Your task to perform on an android device: empty trash in the gmail app Image 0: 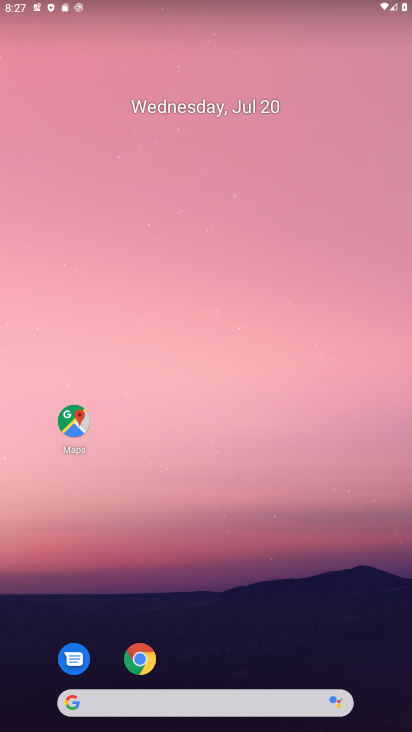
Step 0: drag from (268, 586) to (279, 79)
Your task to perform on an android device: empty trash in the gmail app Image 1: 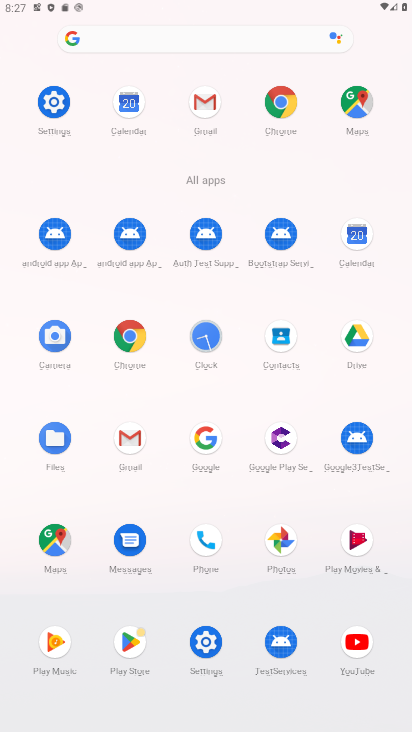
Step 1: click (42, 546)
Your task to perform on an android device: empty trash in the gmail app Image 2: 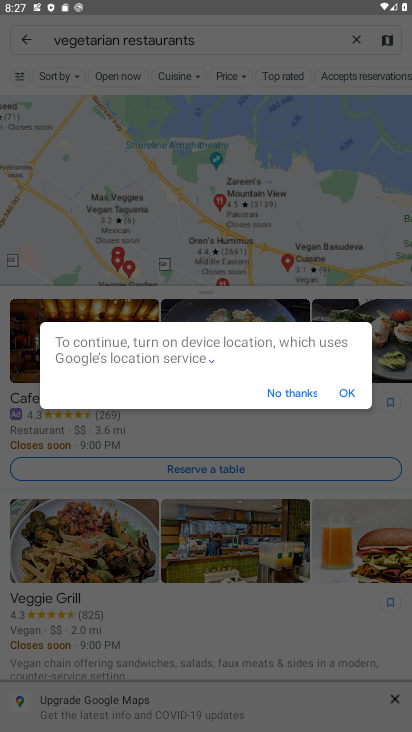
Step 2: press home button
Your task to perform on an android device: empty trash in the gmail app Image 3: 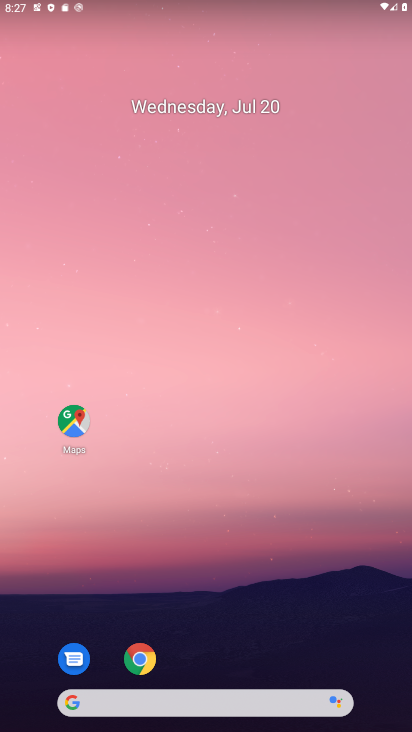
Step 3: drag from (253, 643) to (268, 116)
Your task to perform on an android device: empty trash in the gmail app Image 4: 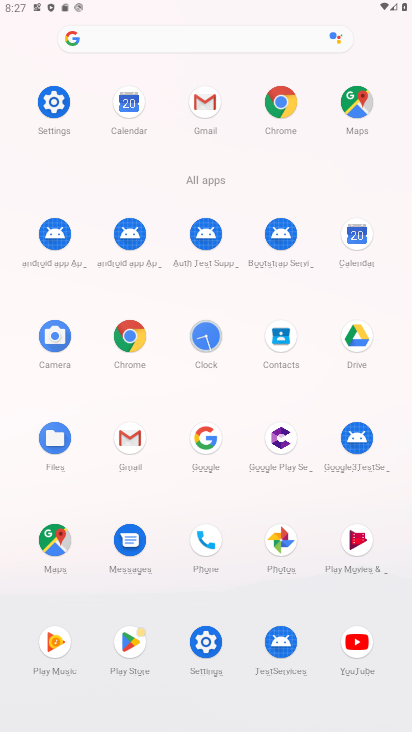
Step 4: click (131, 440)
Your task to perform on an android device: empty trash in the gmail app Image 5: 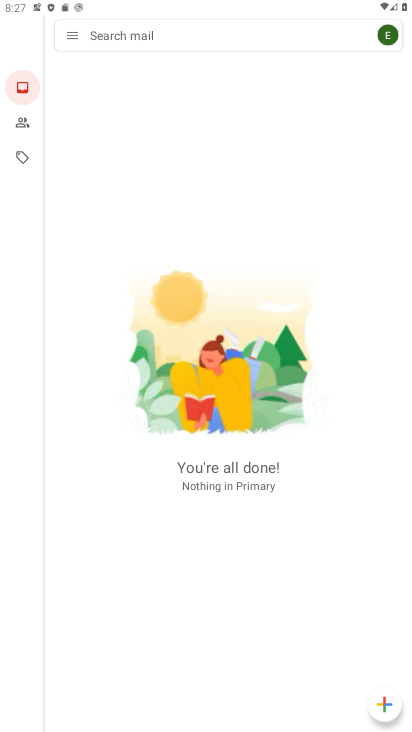
Step 5: click (71, 39)
Your task to perform on an android device: empty trash in the gmail app Image 6: 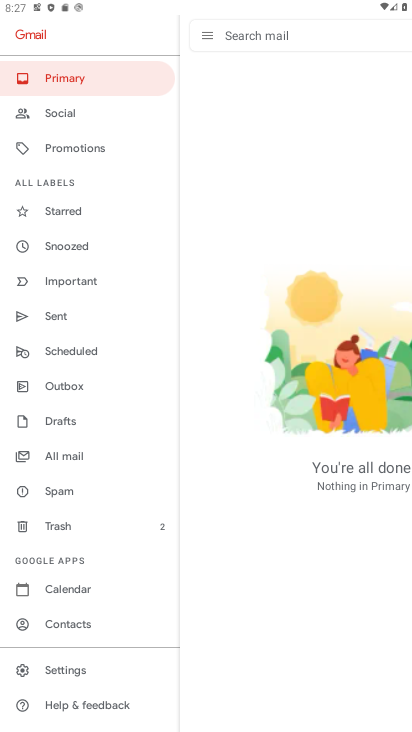
Step 6: click (49, 522)
Your task to perform on an android device: empty trash in the gmail app Image 7: 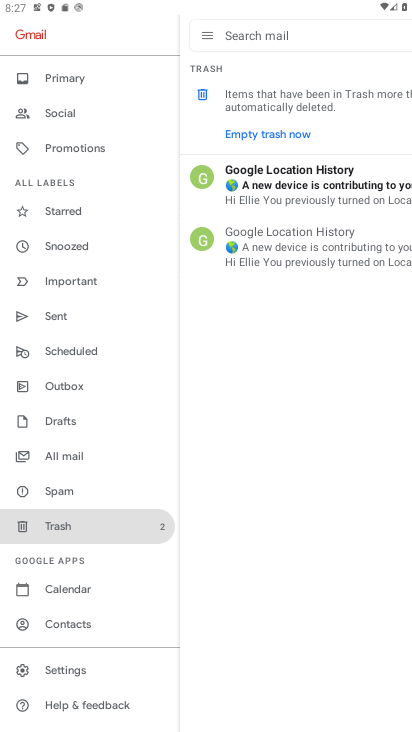
Step 7: click (202, 181)
Your task to perform on an android device: empty trash in the gmail app Image 8: 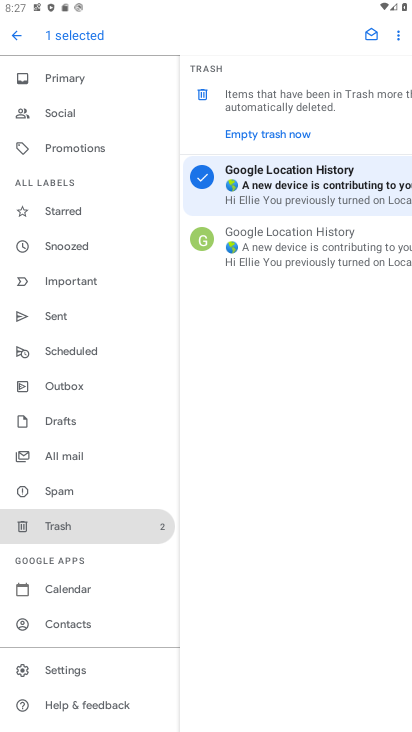
Step 8: click (200, 235)
Your task to perform on an android device: empty trash in the gmail app Image 9: 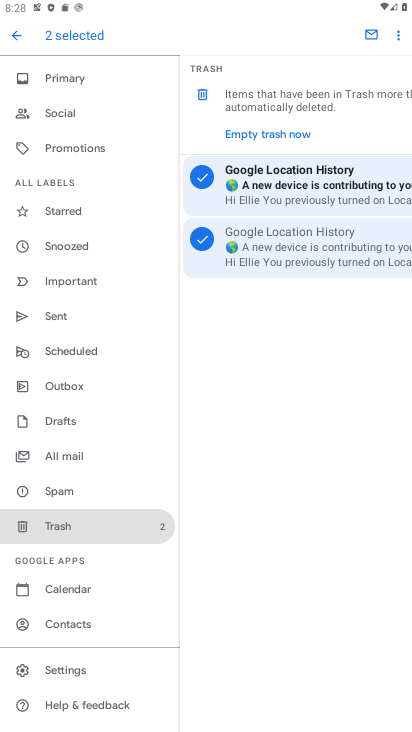
Step 9: click (401, 33)
Your task to perform on an android device: empty trash in the gmail app Image 10: 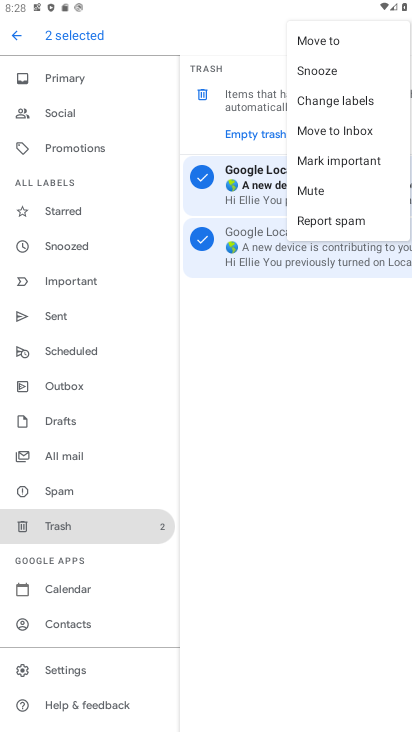
Step 10: click (323, 35)
Your task to perform on an android device: empty trash in the gmail app Image 11: 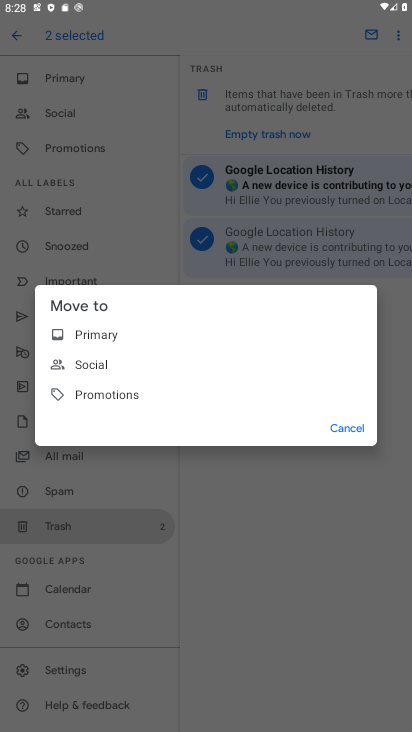
Step 11: click (340, 425)
Your task to perform on an android device: empty trash in the gmail app Image 12: 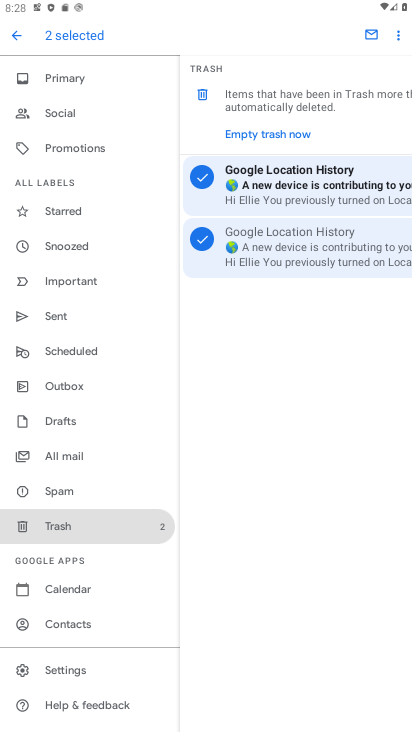
Step 12: click (201, 98)
Your task to perform on an android device: empty trash in the gmail app Image 13: 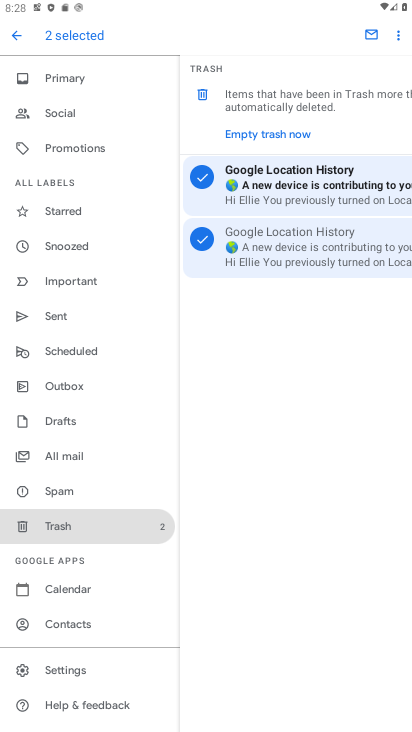
Step 13: click (201, 98)
Your task to perform on an android device: empty trash in the gmail app Image 14: 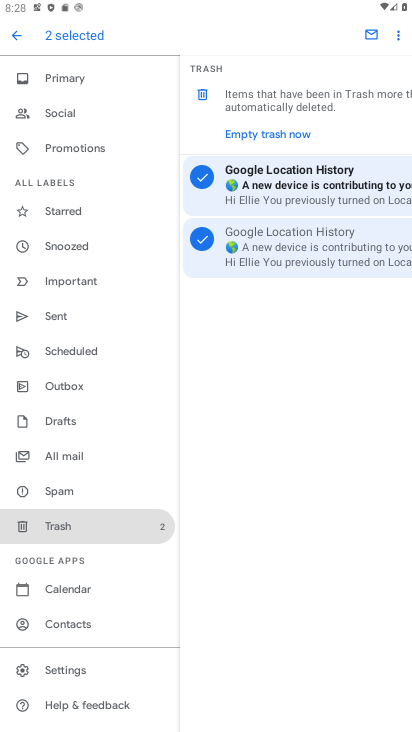
Step 14: drag from (192, 327) to (48, 296)
Your task to perform on an android device: empty trash in the gmail app Image 15: 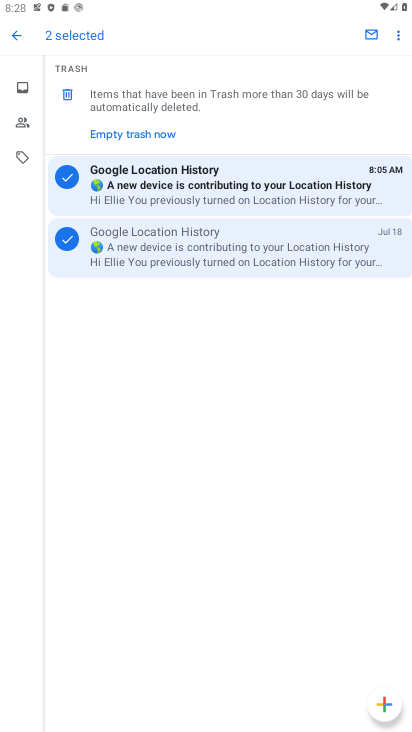
Step 15: click (71, 90)
Your task to perform on an android device: empty trash in the gmail app Image 16: 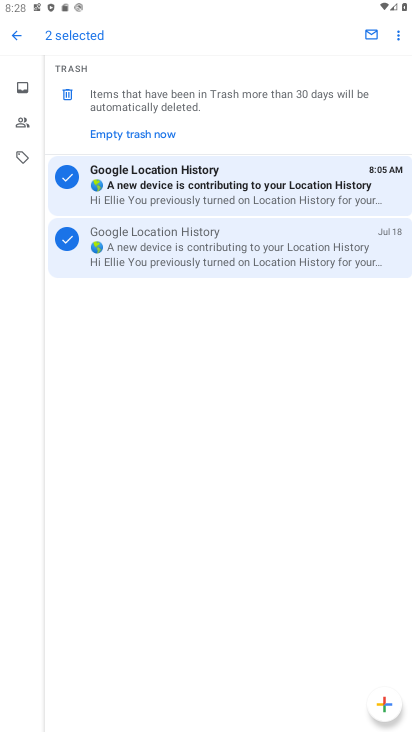
Step 16: click (71, 90)
Your task to perform on an android device: empty trash in the gmail app Image 17: 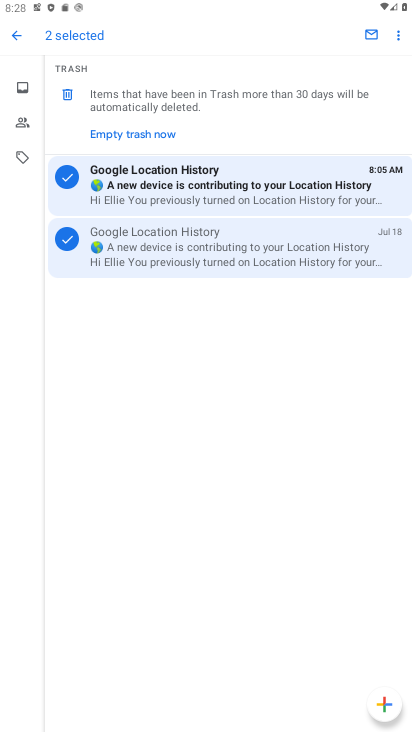
Step 17: click (395, 35)
Your task to perform on an android device: empty trash in the gmail app Image 18: 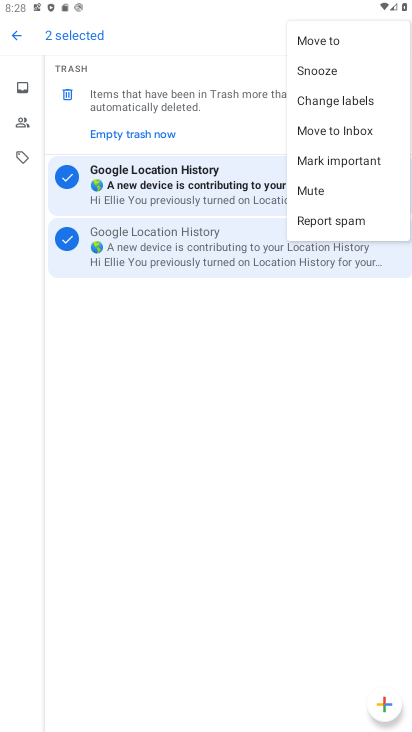
Step 18: click (166, 314)
Your task to perform on an android device: empty trash in the gmail app Image 19: 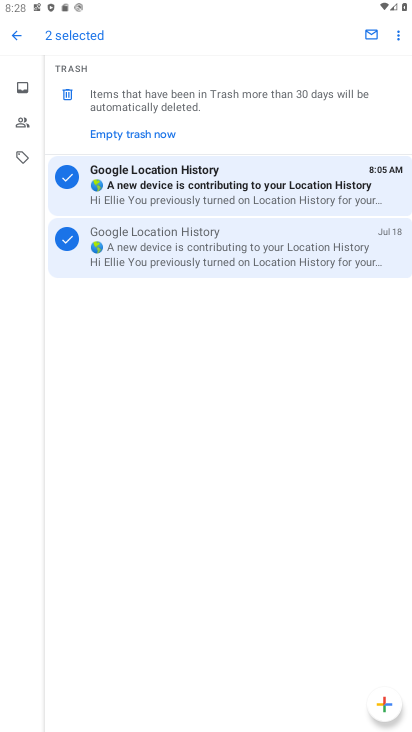
Step 19: click (389, 38)
Your task to perform on an android device: empty trash in the gmail app Image 20: 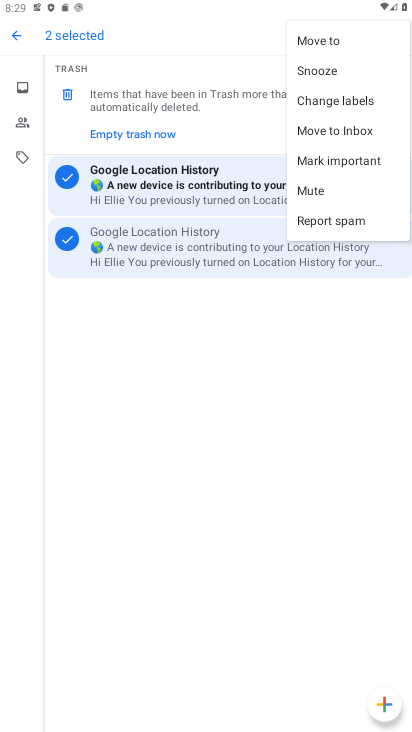
Step 20: click (308, 62)
Your task to perform on an android device: empty trash in the gmail app Image 21: 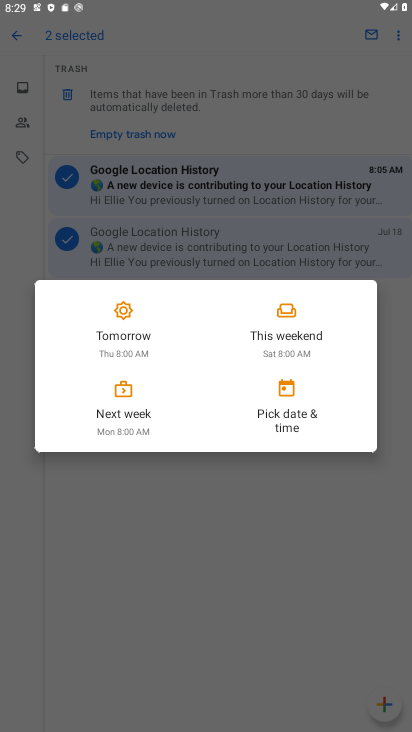
Step 21: click (106, 336)
Your task to perform on an android device: empty trash in the gmail app Image 22: 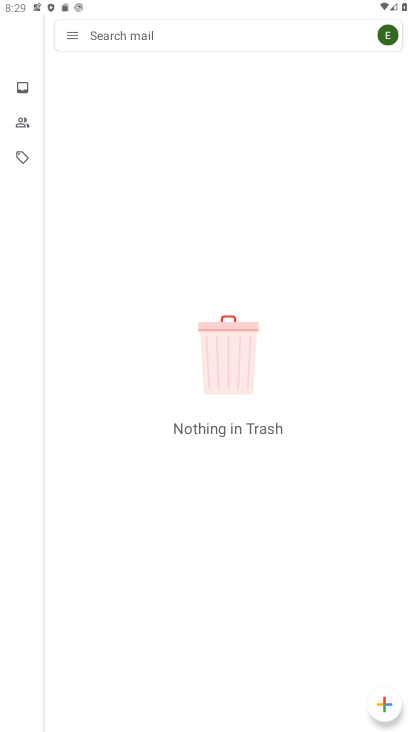
Step 22: task complete